Your task to perform on an android device: toggle priority inbox in the gmail app Image 0: 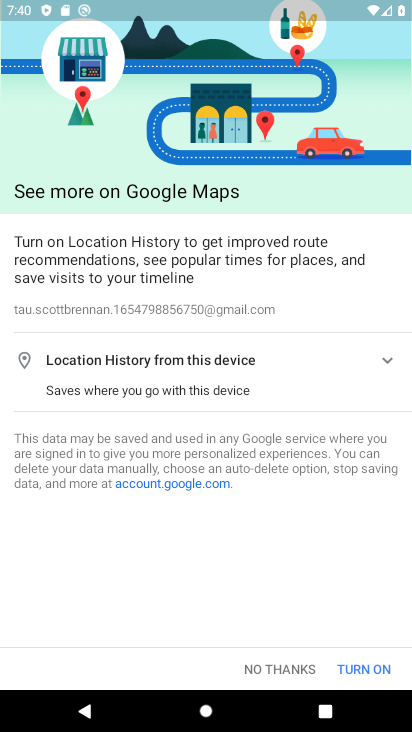
Step 0: press home button
Your task to perform on an android device: toggle priority inbox in the gmail app Image 1: 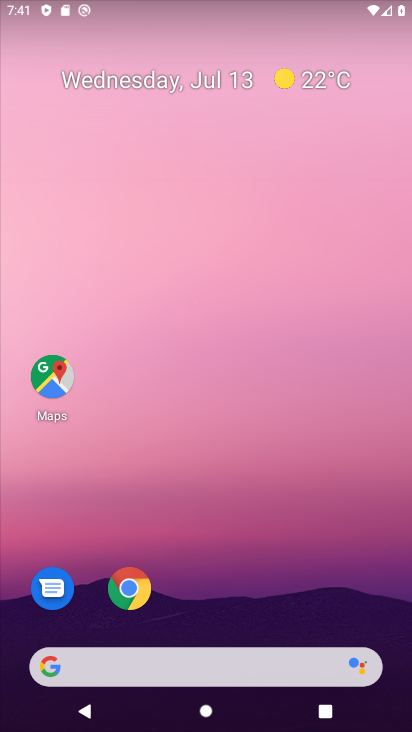
Step 1: drag from (226, 566) to (159, 314)
Your task to perform on an android device: toggle priority inbox in the gmail app Image 2: 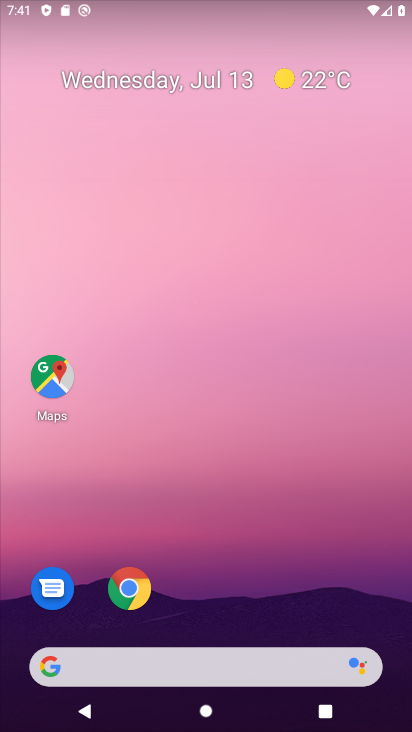
Step 2: drag from (218, 610) to (215, 263)
Your task to perform on an android device: toggle priority inbox in the gmail app Image 3: 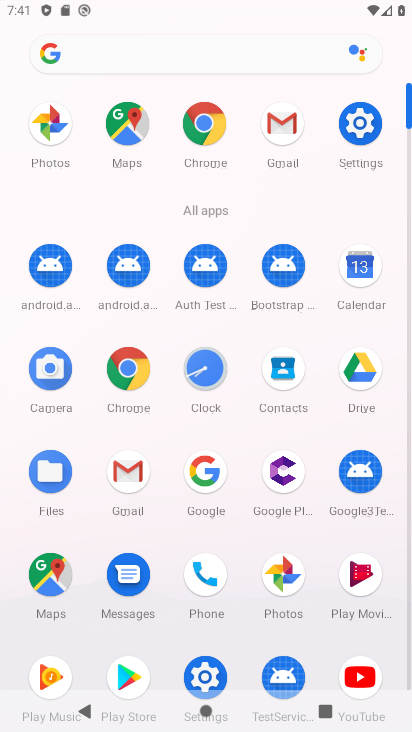
Step 3: click (274, 126)
Your task to perform on an android device: toggle priority inbox in the gmail app Image 4: 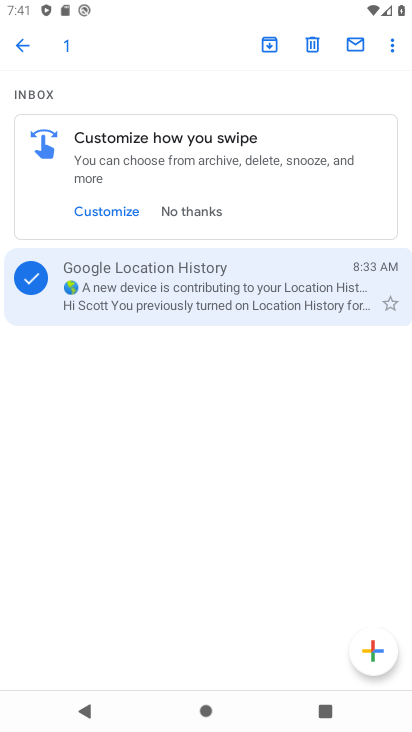
Step 4: click (15, 46)
Your task to perform on an android device: toggle priority inbox in the gmail app Image 5: 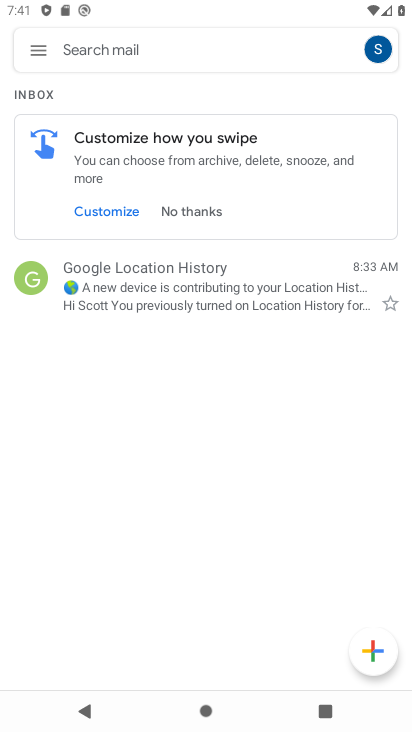
Step 5: click (32, 41)
Your task to perform on an android device: toggle priority inbox in the gmail app Image 6: 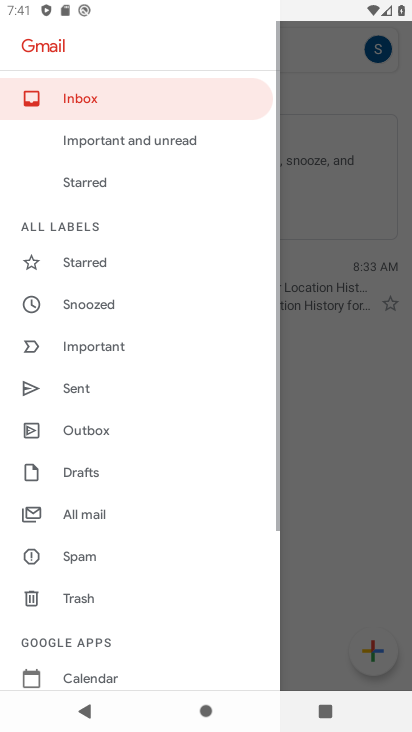
Step 6: drag from (113, 597) to (30, 239)
Your task to perform on an android device: toggle priority inbox in the gmail app Image 7: 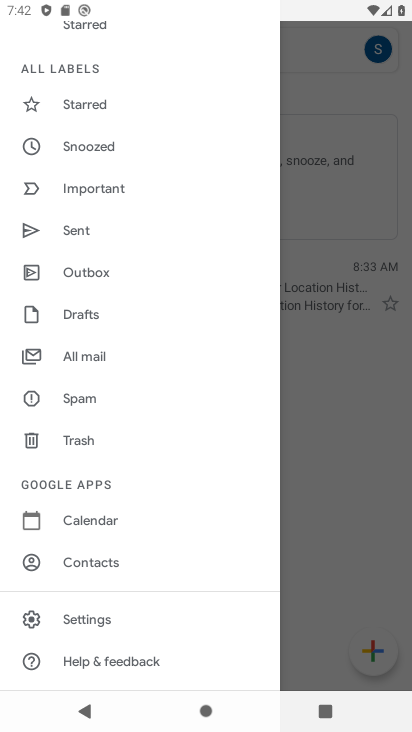
Step 7: click (91, 614)
Your task to perform on an android device: toggle priority inbox in the gmail app Image 8: 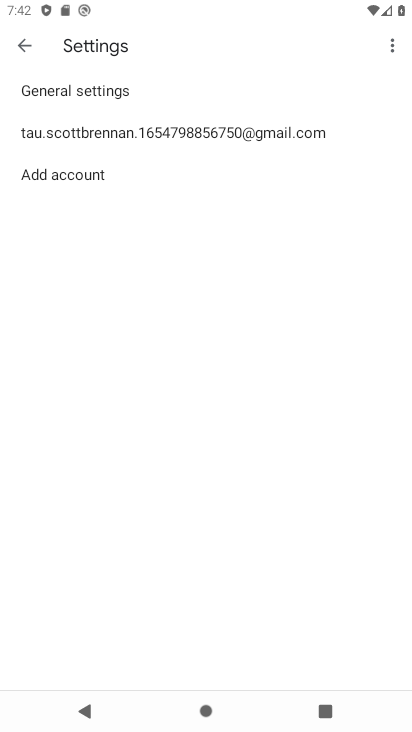
Step 8: click (114, 86)
Your task to perform on an android device: toggle priority inbox in the gmail app Image 9: 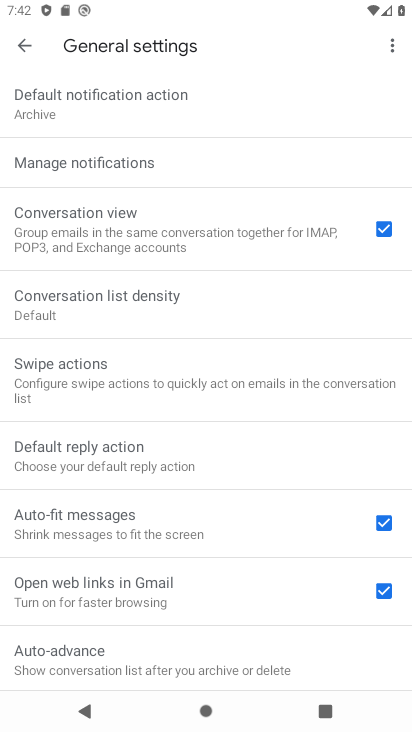
Step 9: click (34, 44)
Your task to perform on an android device: toggle priority inbox in the gmail app Image 10: 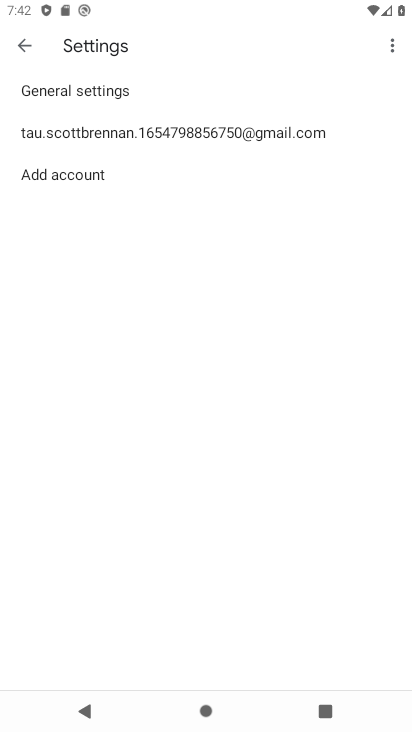
Step 10: click (84, 124)
Your task to perform on an android device: toggle priority inbox in the gmail app Image 11: 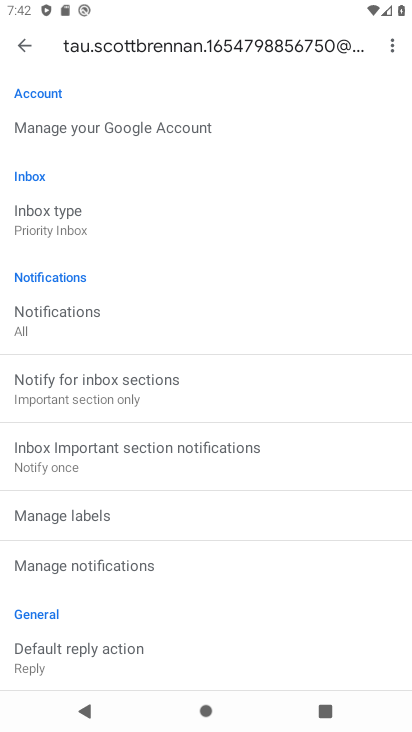
Step 11: click (83, 209)
Your task to perform on an android device: toggle priority inbox in the gmail app Image 12: 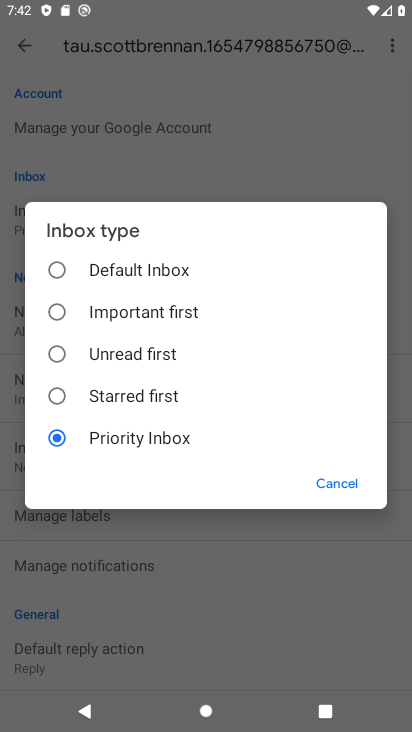
Step 12: click (99, 274)
Your task to perform on an android device: toggle priority inbox in the gmail app Image 13: 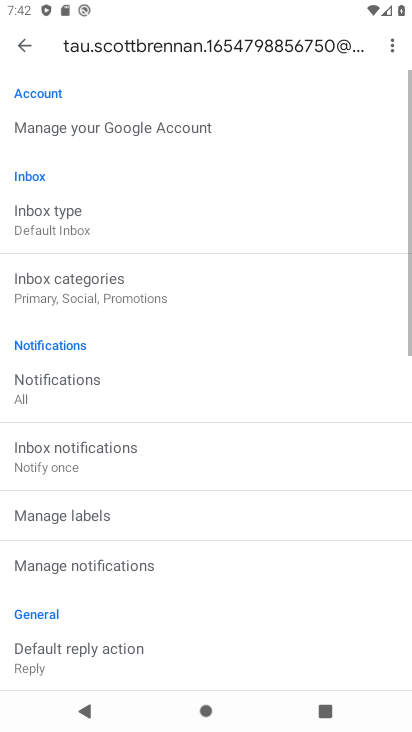
Step 13: task complete